Your task to perform on an android device: set the stopwatch Image 0: 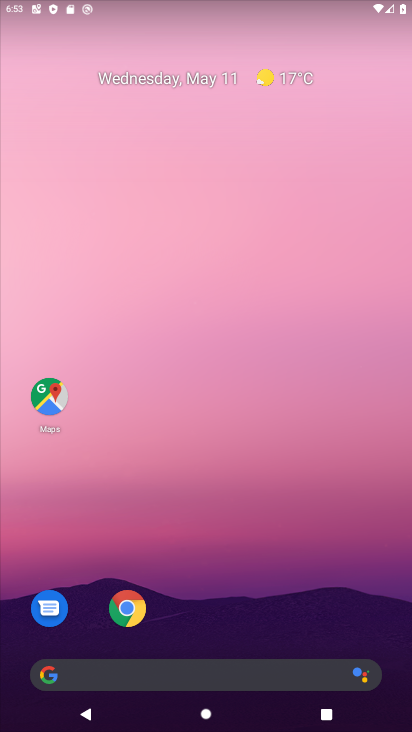
Step 0: drag from (267, 607) to (267, 142)
Your task to perform on an android device: set the stopwatch Image 1: 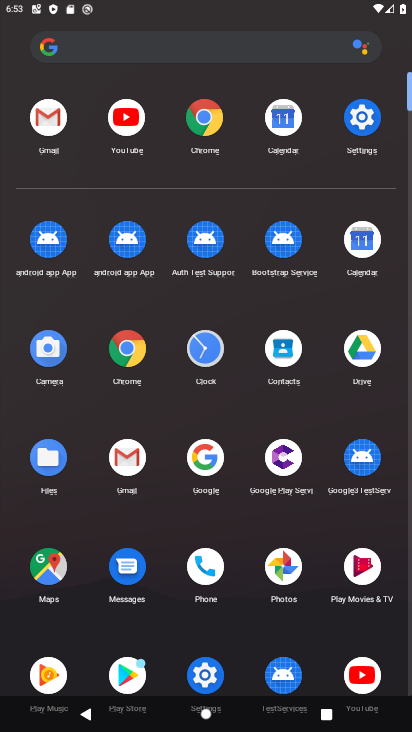
Step 1: click (215, 374)
Your task to perform on an android device: set the stopwatch Image 2: 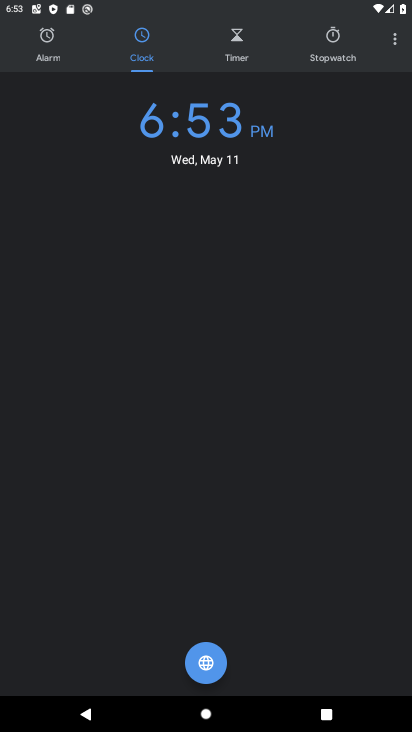
Step 2: click (326, 61)
Your task to perform on an android device: set the stopwatch Image 3: 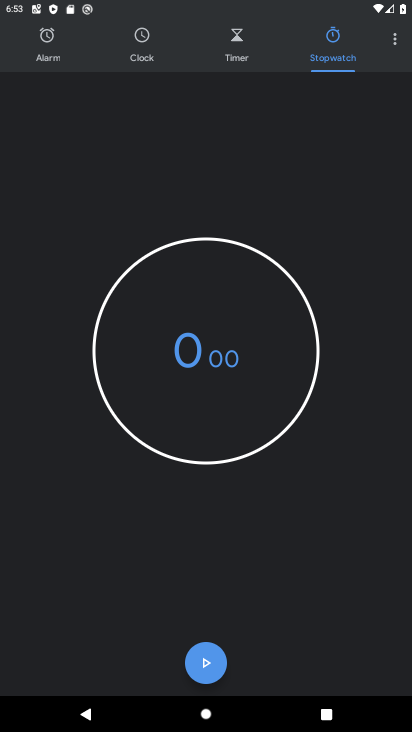
Step 3: task complete